Your task to perform on an android device: Go to Google Image 0: 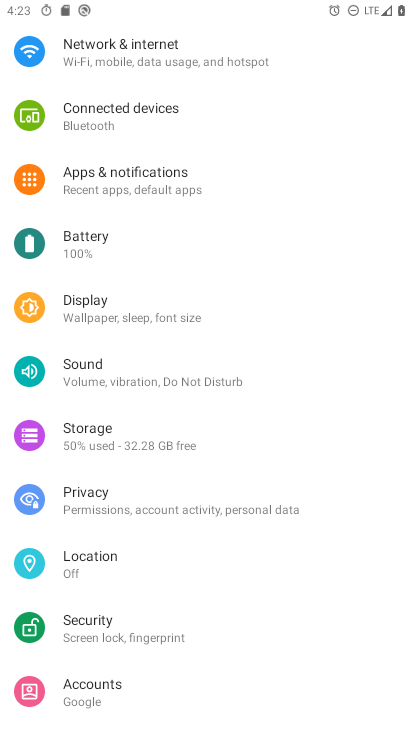
Step 0: press home button
Your task to perform on an android device: Go to Google Image 1: 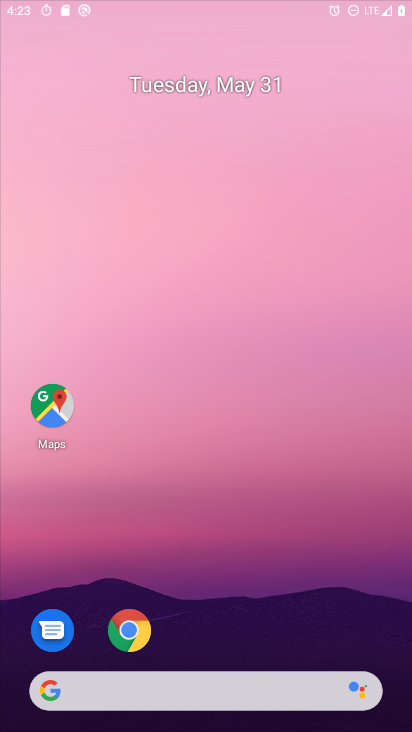
Step 1: drag from (307, 685) to (270, 2)
Your task to perform on an android device: Go to Google Image 2: 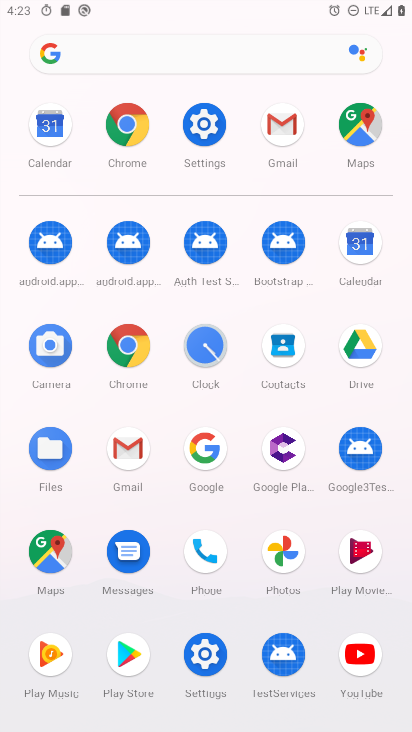
Step 2: click (138, 365)
Your task to perform on an android device: Go to Google Image 3: 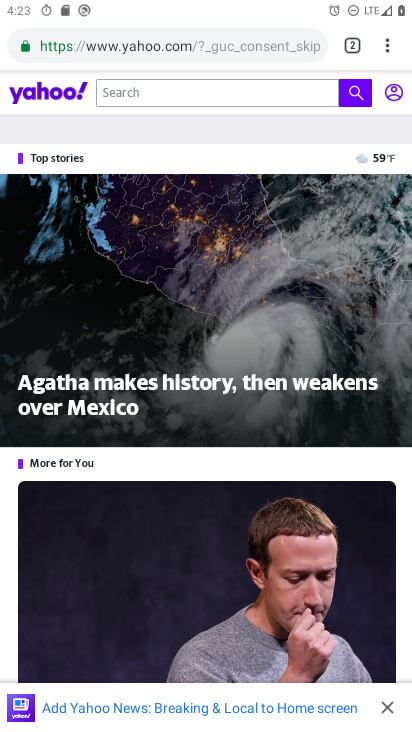
Step 3: task complete